Your task to perform on an android device: Go to calendar. Show me events next week Image 0: 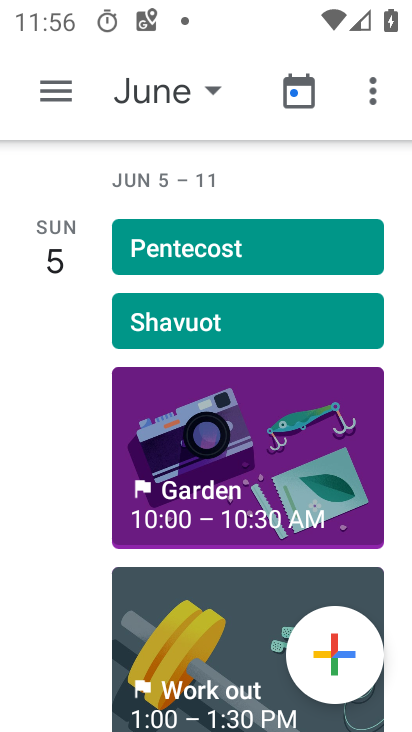
Step 0: press home button
Your task to perform on an android device: Go to calendar. Show me events next week Image 1: 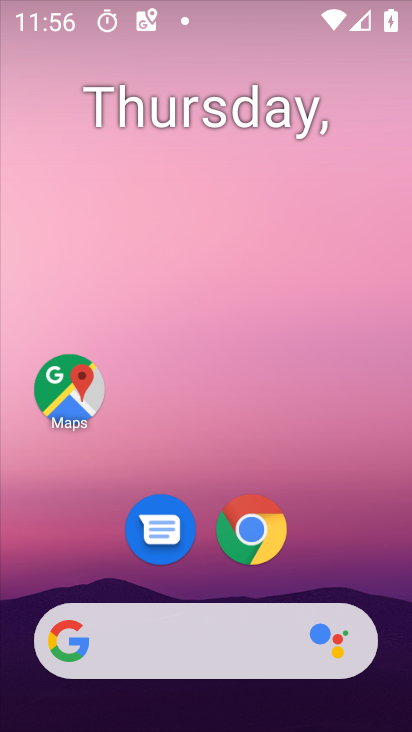
Step 1: drag from (186, 684) to (164, 195)
Your task to perform on an android device: Go to calendar. Show me events next week Image 2: 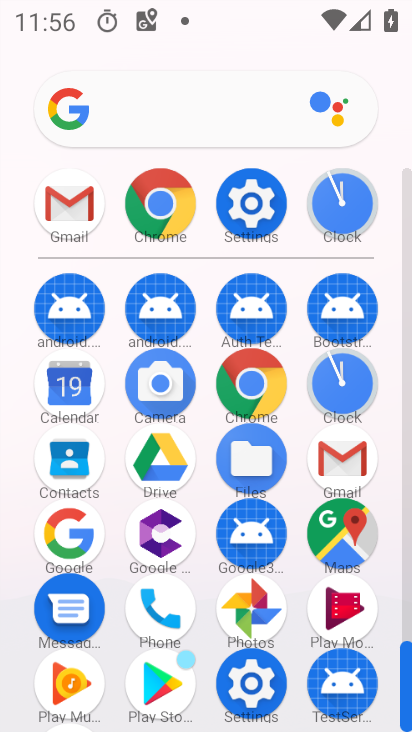
Step 2: click (54, 401)
Your task to perform on an android device: Go to calendar. Show me events next week Image 3: 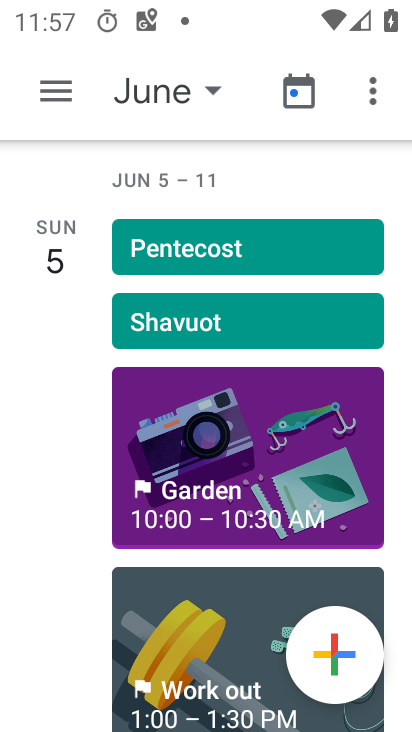
Step 3: click (167, 103)
Your task to perform on an android device: Go to calendar. Show me events next week Image 4: 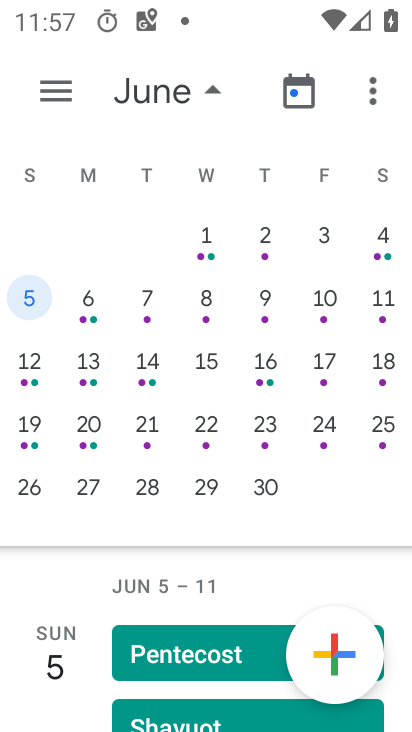
Step 4: drag from (50, 371) to (407, 444)
Your task to perform on an android device: Go to calendar. Show me events next week Image 5: 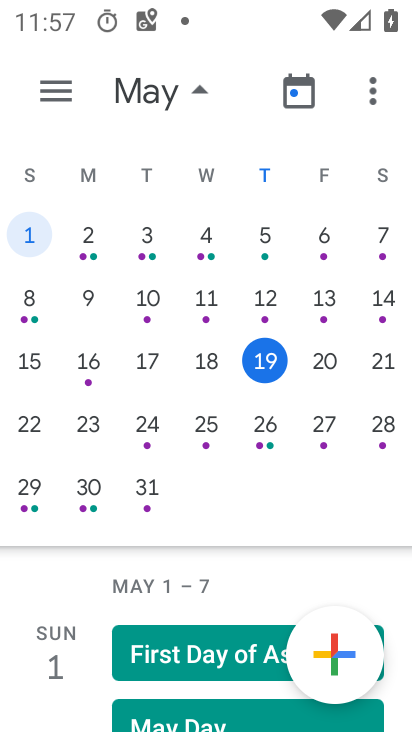
Step 5: click (34, 434)
Your task to perform on an android device: Go to calendar. Show me events next week Image 6: 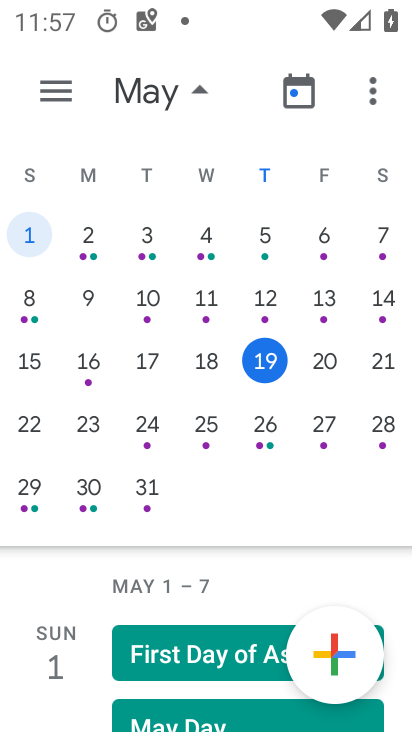
Step 6: click (34, 433)
Your task to perform on an android device: Go to calendar. Show me events next week Image 7: 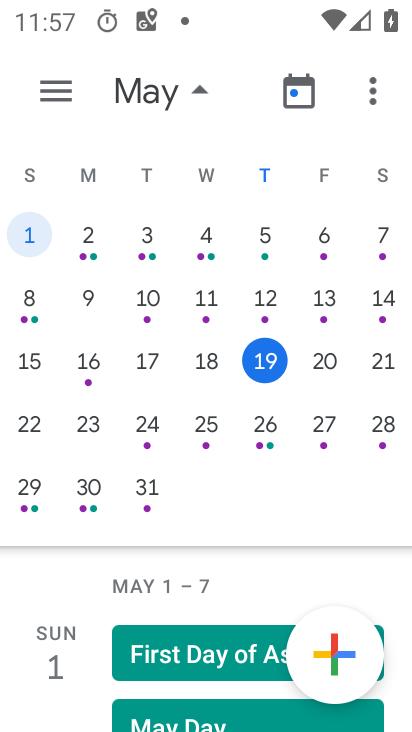
Step 7: click (34, 433)
Your task to perform on an android device: Go to calendar. Show me events next week Image 8: 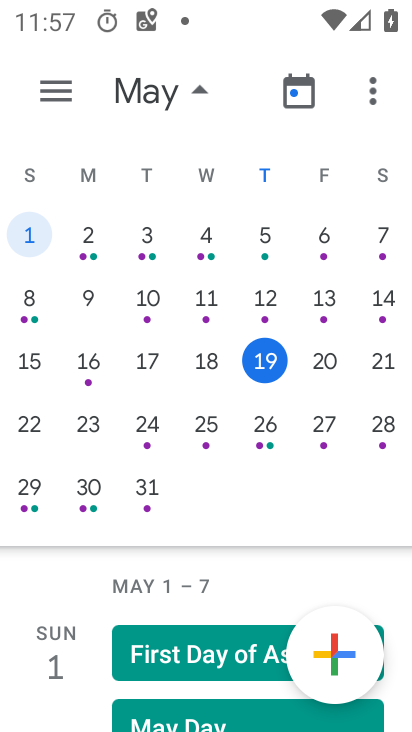
Step 8: click (33, 441)
Your task to perform on an android device: Go to calendar. Show me events next week Image 9: 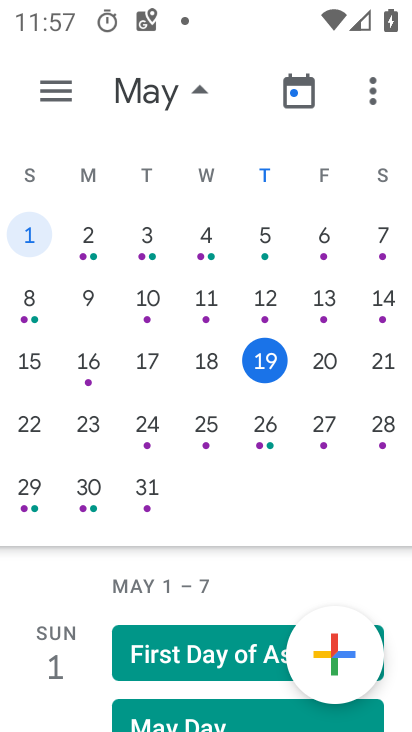
Step 9: click (37, 424)
Your task to perform on an android device: Go to calendar. Show me events next week Image 10: 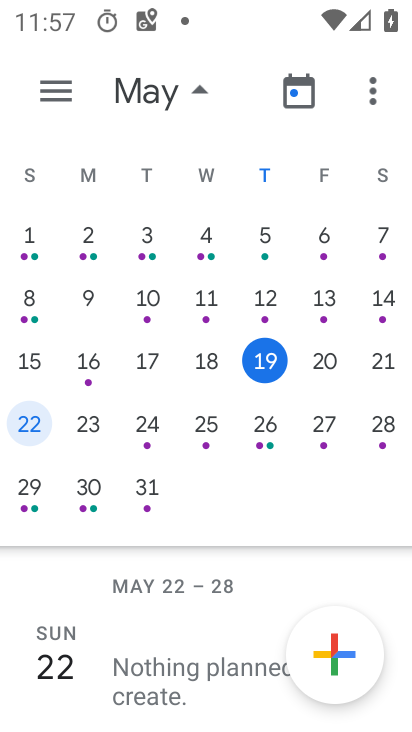
Step 10: task complete